Your task to perform on an android device: Open calendar and show me the fourth week of next month Image 0: 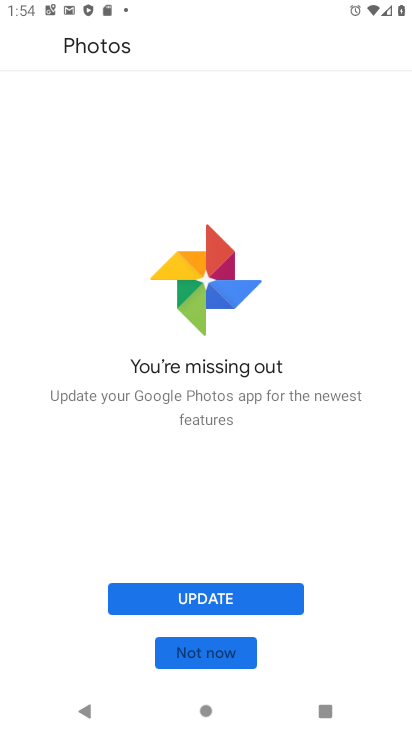
Step 0: press home button
Your task to perform on an android device: Open calendar and show me the fourth week of next month Image 1: 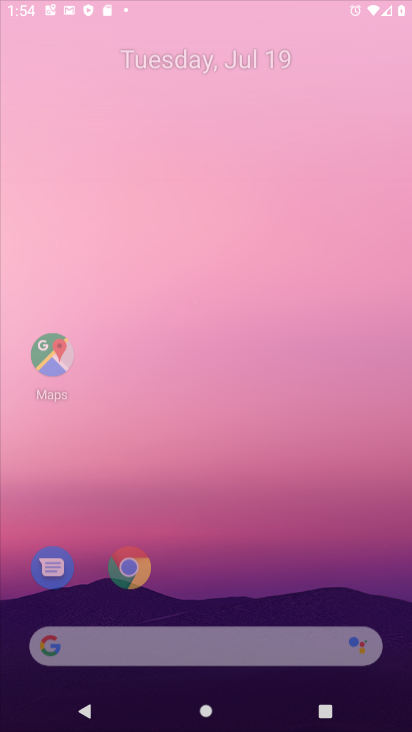
Step 1: drag from (405, 681) to (278, 21)
Your task to perform on an android device: Open calendar and show me the fourth week of next month Image 2: 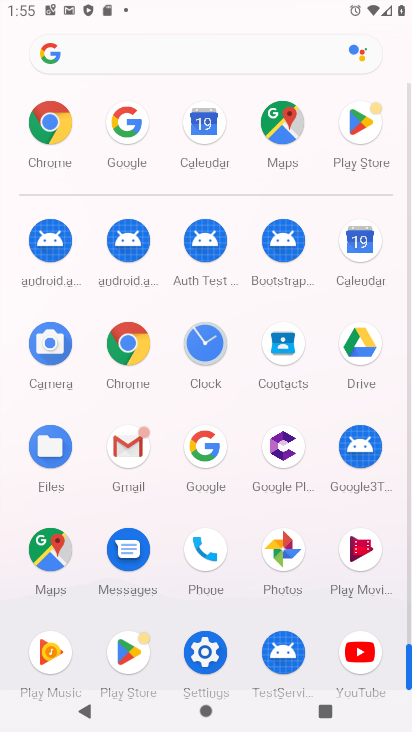
Step 2: click (361, 242)
Your task to perform on an android device: Open calendar and show me the fourth week of next month Image 3: 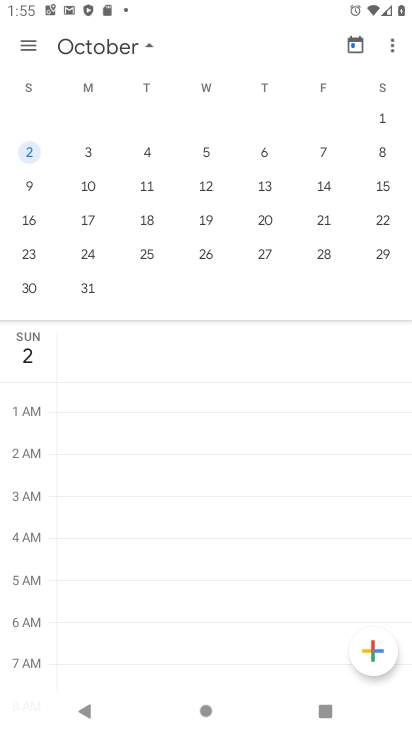
Step 3: drag from (368, 183) to (87, 192)
Your task to perform on an android device: Open calendar and show me the fourth week of next month Image 4: 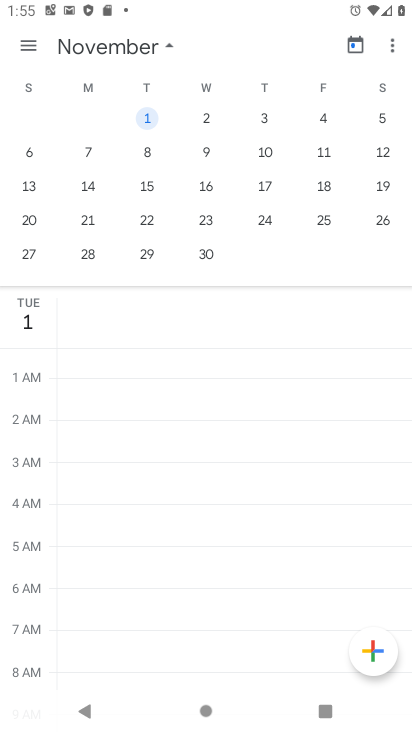
Step 4: click (19, 249)
Your task to perform on an android device: Open calendar and show me the fourth week of next month Image 5: 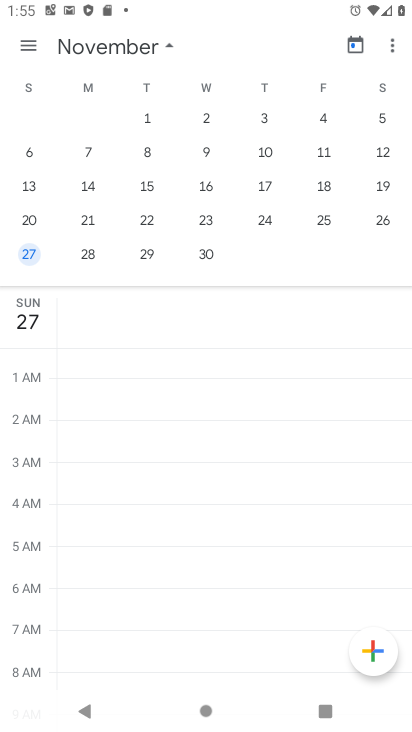
Step 5: task complete